Your task to perform on an android device: turn off javascript in the chrome app Image 0: 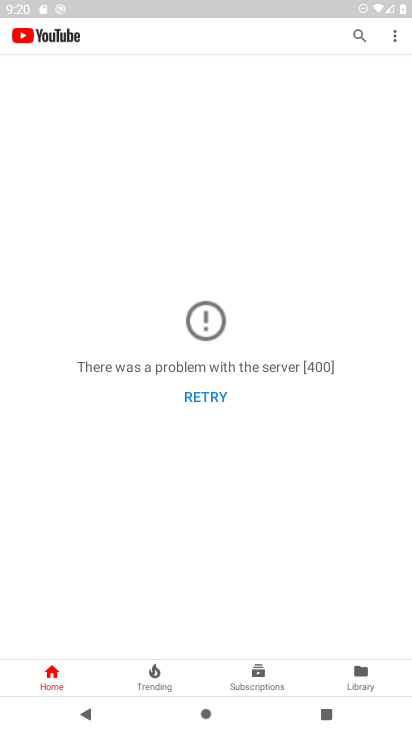
Step 0: drag from (223, 595) to (259, 390)
Your task to perform on an android device: turn off javascript in the chrome app Image 1: 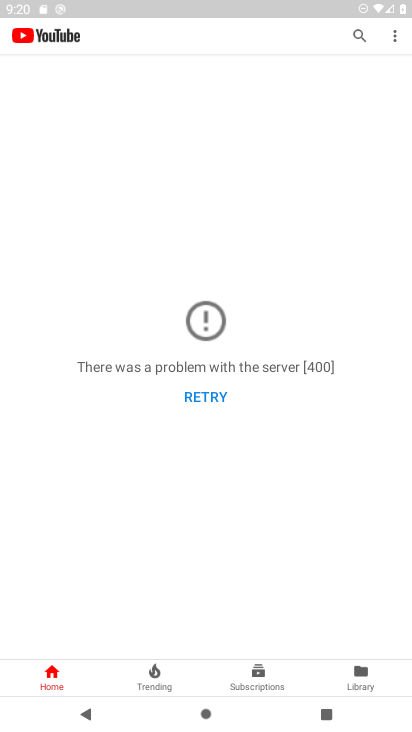
Step 1: press home button
Your task to perform on an android device: turn off javascript in the chrome app Image 2: 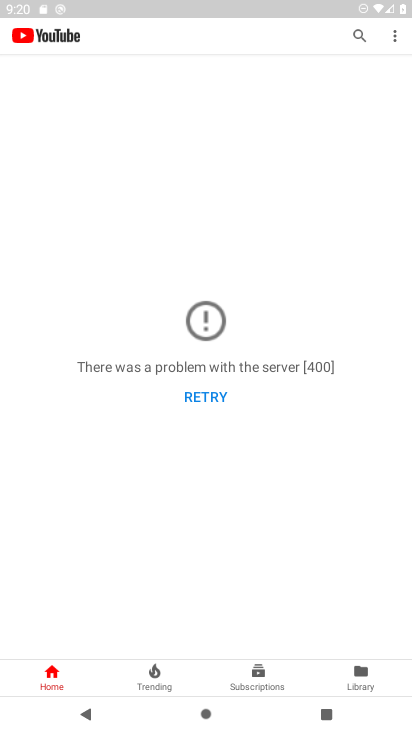
Step 2: drag from (156, 589) to (257, 198)
Your task to perform on an android device: turn off javascript in the chrome app Image 3: 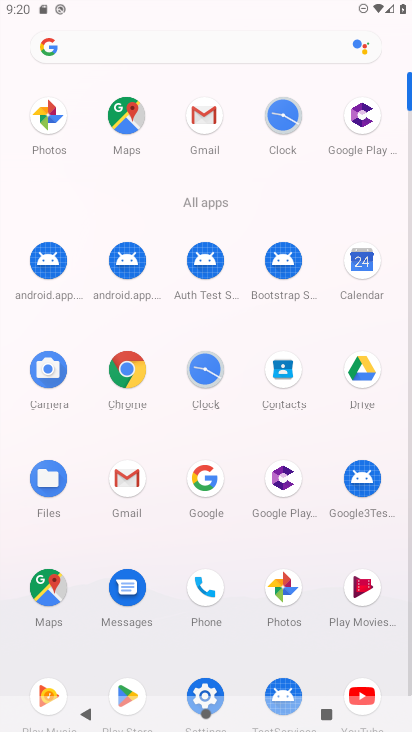
Step 3: click (122, 368)
Your task to perform on an android device: turn off javascript in the chrome app Image 4: 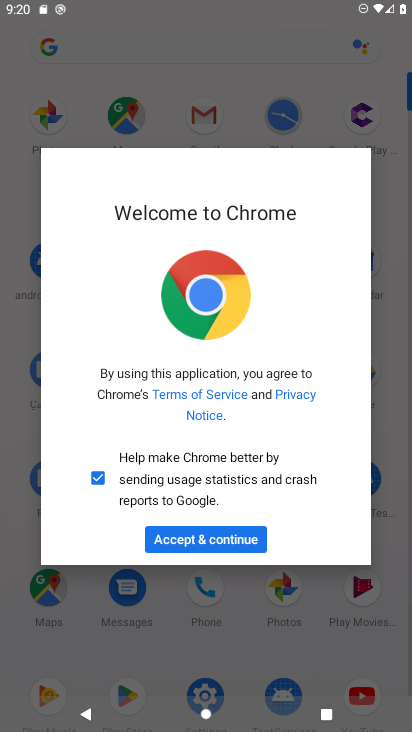
Step 4: drag from (202, 619) to (296, 207)
Your task to perform on an android device: turn off javascript in the chrome app Image 5: 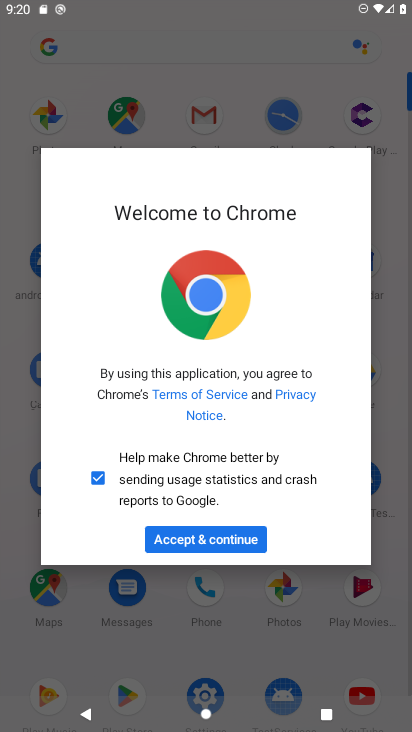
Step 5: click (182, 538)
Your task to perform on an android device: turn off javascript in the chrome app Image 6: 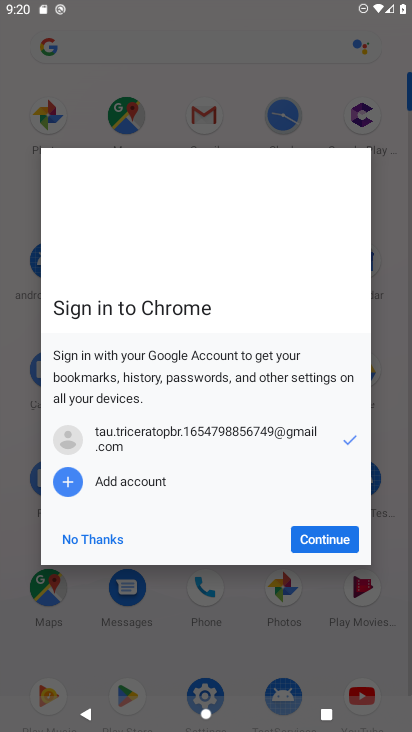
Step 6: click (305, 535)
Your task to perform on an android device: turn off javascript in the chrome app Image 7: 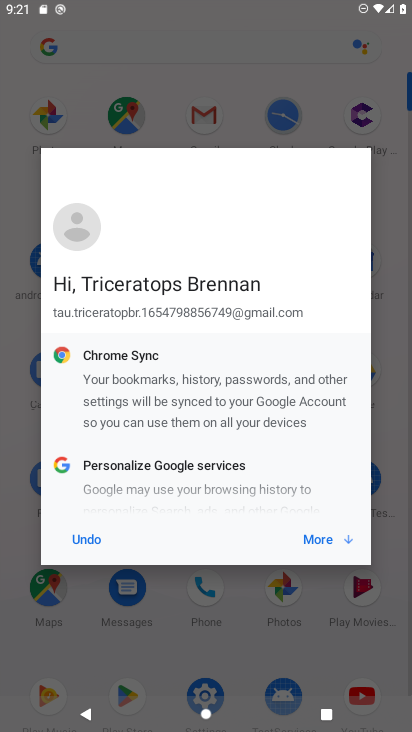
Step 7: click (324, 541)
Your task to perform on an android device: turn off javascript in the chrome app Image 8: 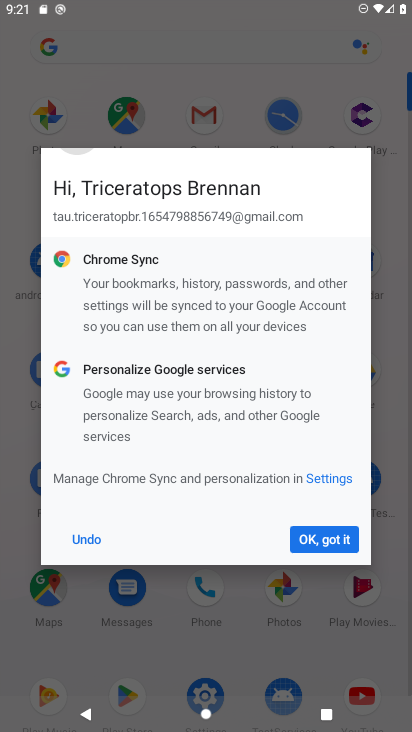
Step 8: click (329, 539)
Your task to perform on an android device: turn off javascript in the chrome app Image 9: 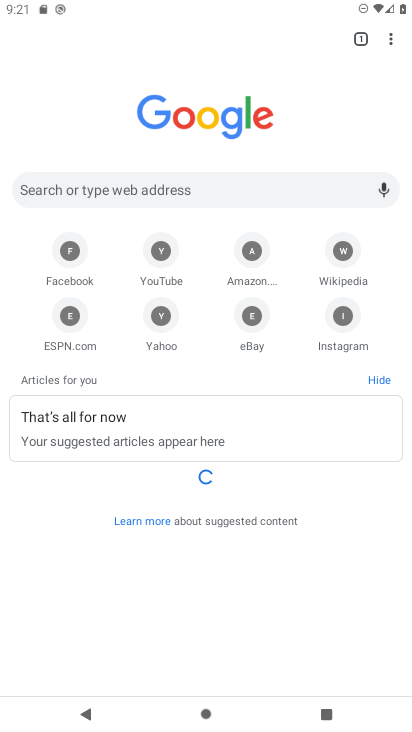
Step 9: drag from (389, 33) to (276, 325)
Your task to perform on an android device: turn off javascript in the chrome app Image 10: 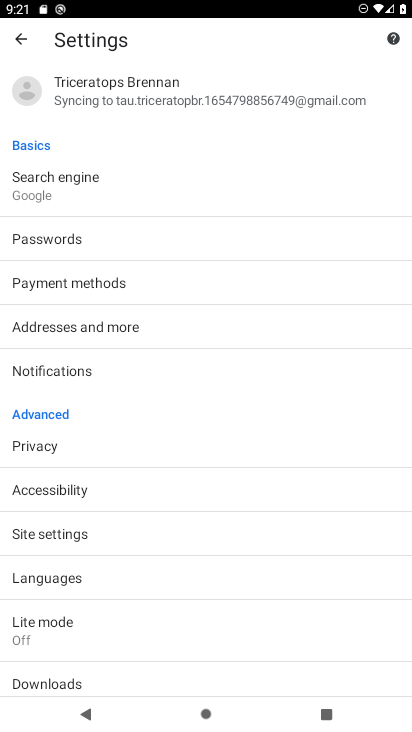
Step 10: click (62, 528)
Your task to perform on an android device: turn off javascript in the chrome app Image 11: 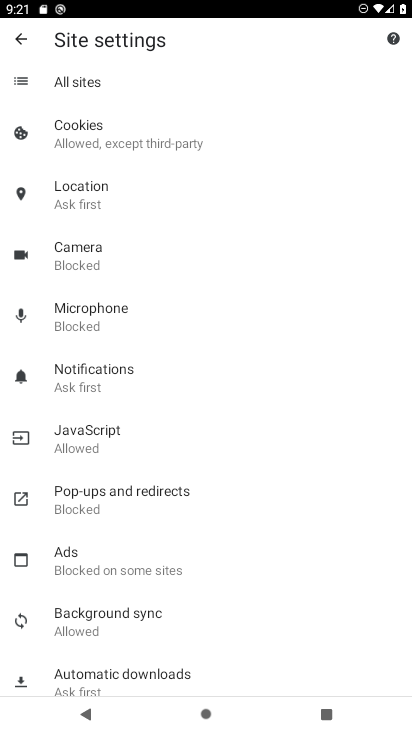
Step 11: click (97, 440)
Your task to perform on an android device: turn off javascript in the chrome app Image 12: 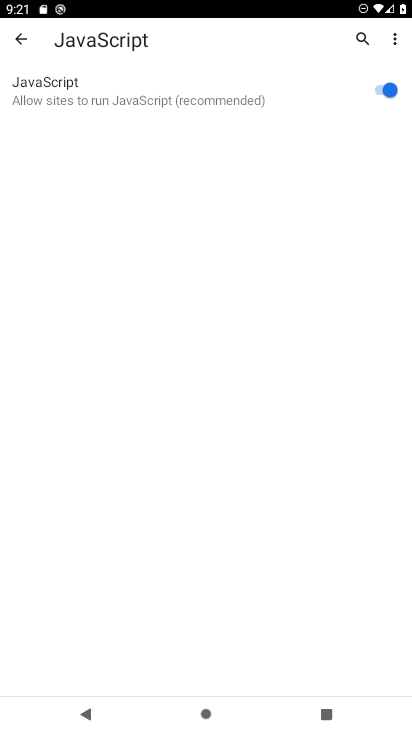
Step 12: drag from (165, 407) to (241, 196)
Your task to perform on an android device: turn off javascript in the chrome app Image 13: 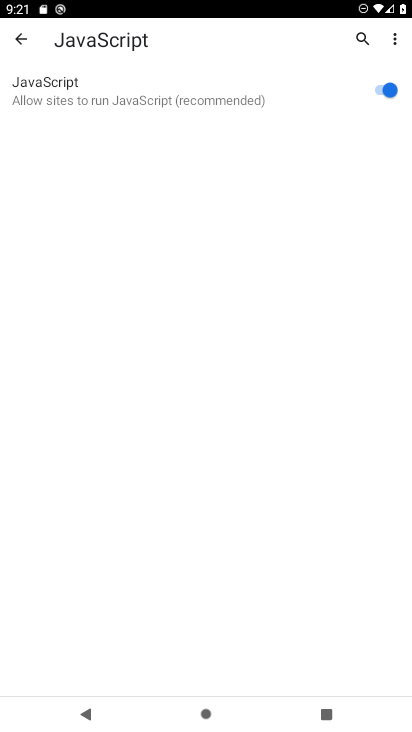
Step 13: click (387, 88)
Your task to perform on an android device: turn off javascript in the chrome app Image 14: 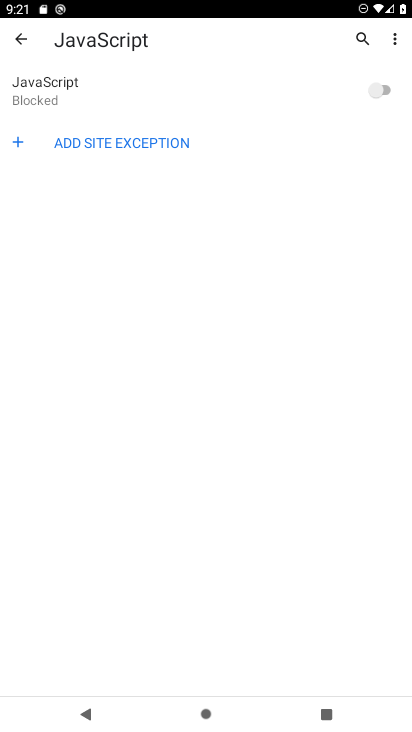
Step 14: task complete